Your task to perform on an android device: star an email in the gmail app Image 0: 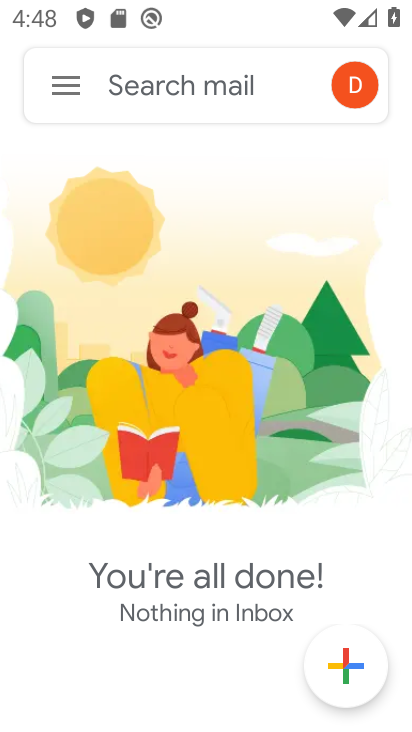
Step 0: press back button
Your task to perform on an android device: star an email in the gmail app Image 1: 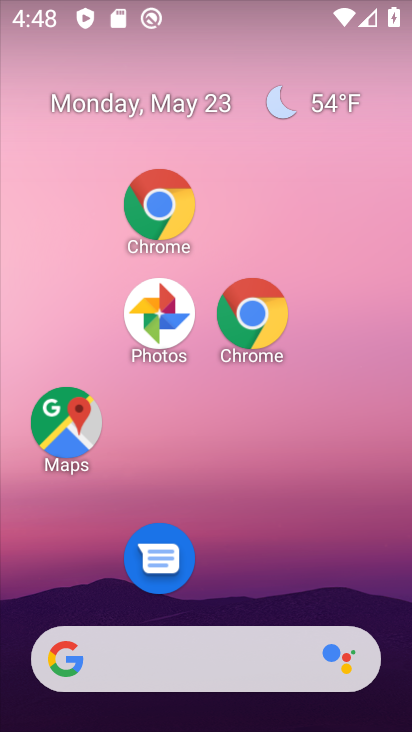
Step 1: drag from (281, 496) to (265, 44)
Your task to perform on an android device: star an email in the gmail app Image 2: 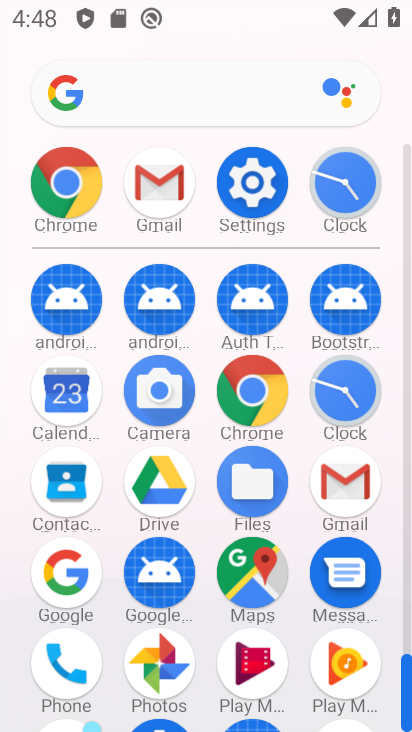
Step 2: click (328, 487)
Your task to perform on an android device: star an email in the gmail app Image 3: 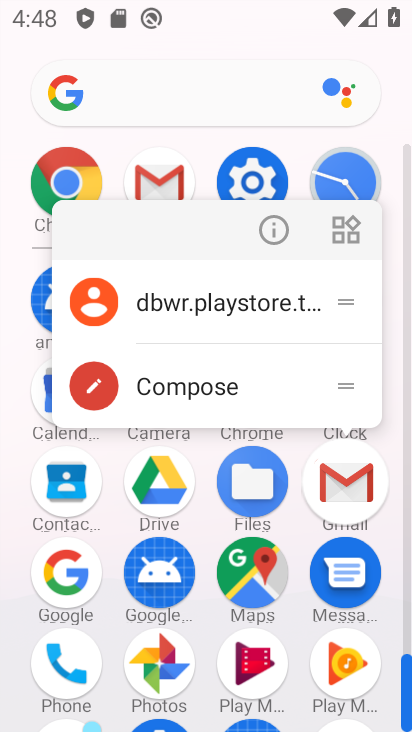
Step 3: click (349, 490)
Your task to perform on an android device: star an email in the gmail app Image 4: 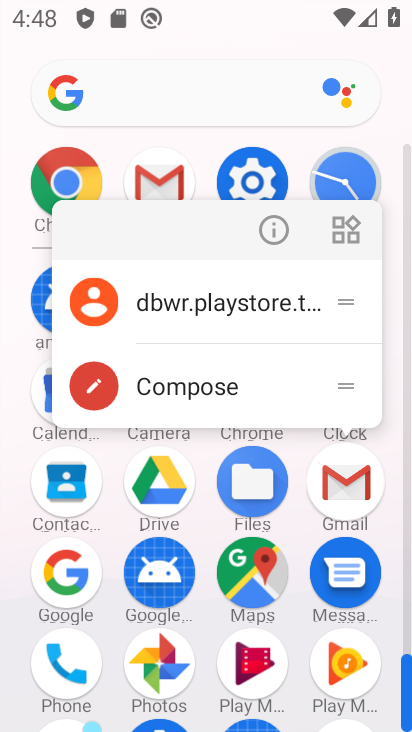
Step 4: click (347, 487)
Your task to perform on an android device: star an email in the gmail app Image 5: 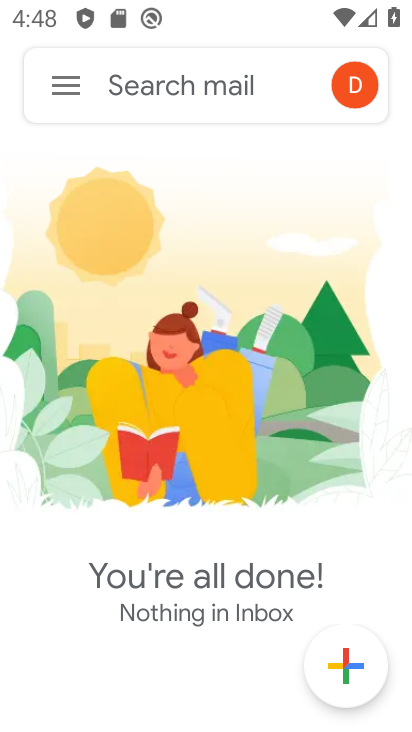
Step 5: click (51, 75)
Your task to perform on an android device: star an email in the gmail app Image 6: 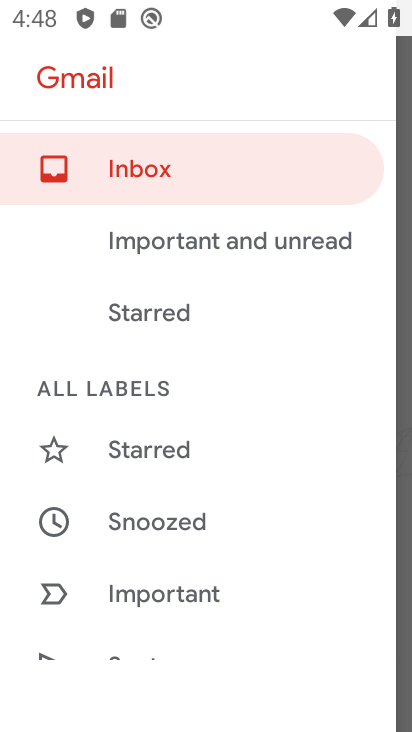
Step 6: drag from (148, 547) to (148, 331)
Your task to perform on an android device: star an email in the gmail app Image 7: 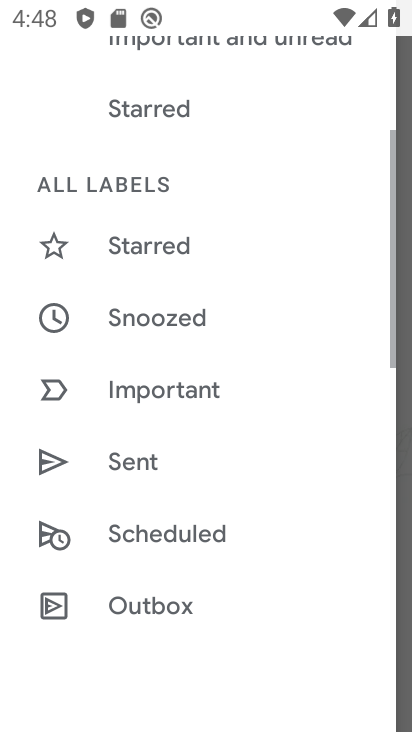
Step 7: drag from (168, 474) to (168, 285)
Your task to perform on an android device: star an email in the gmail app Image 8: 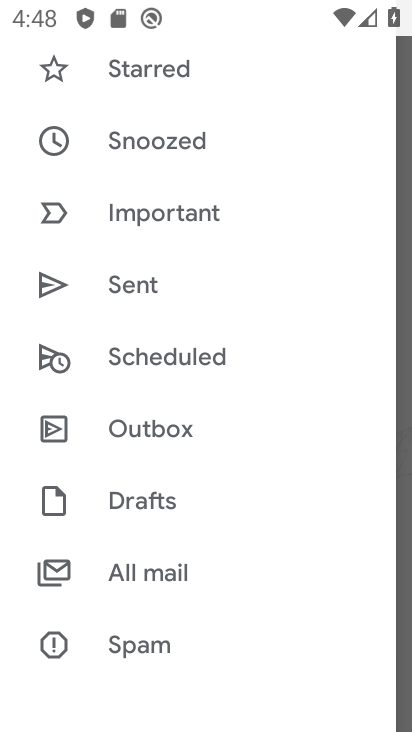
Step 8: click (140, 568)
Your task to perform on an android device: star an email in the gmail app Image 9: 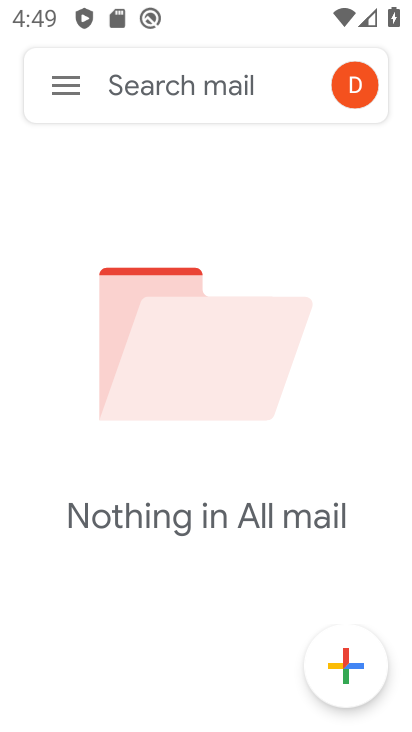
Step 9: task complete